Your task to perform on an android device: Search for Mexican restaurants on Maps Image 0: 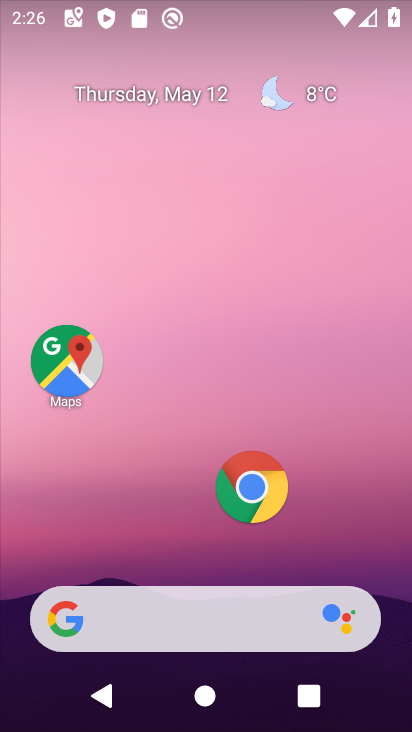
Step 0: click (71, 356)
Your task to perform on an android device: Search for Mexican restaurants on Maps Image 1: 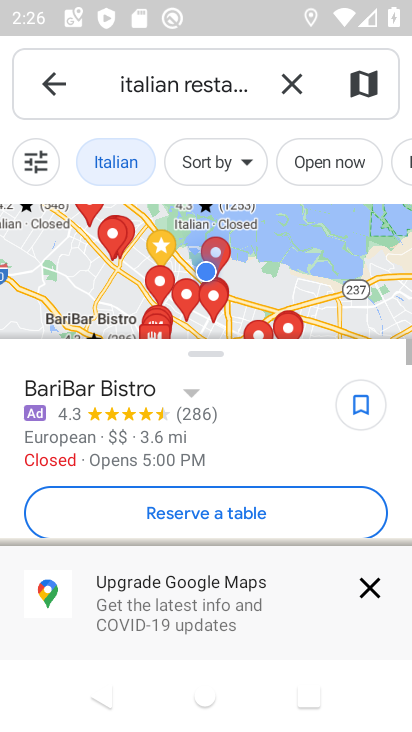
Step 1: click (281, 86)
Your task to perform on an android device: Search for Mexican restaurants on Maps Image 2: 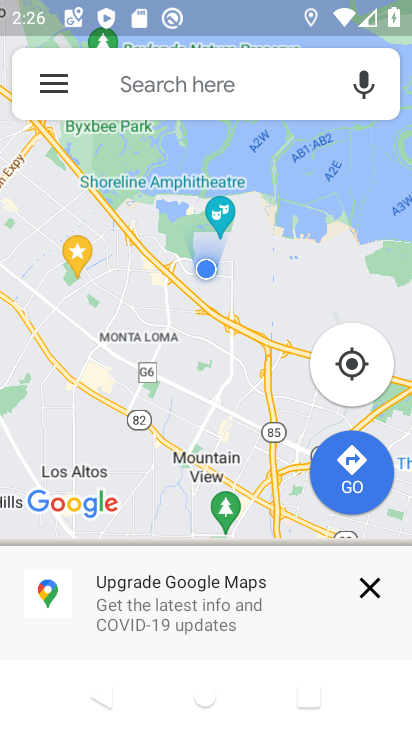
Step 2: click (136, 82)
Your task to perform on an android device: Search for Mexican restaurants on Maps Image 3: 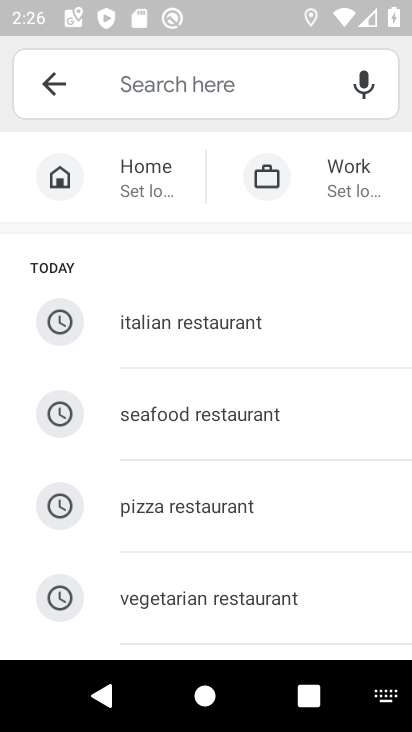
Step 3: type "mexican"
Your task to perform on an android device: Search for Mexican restaurants on Maps Image 4: 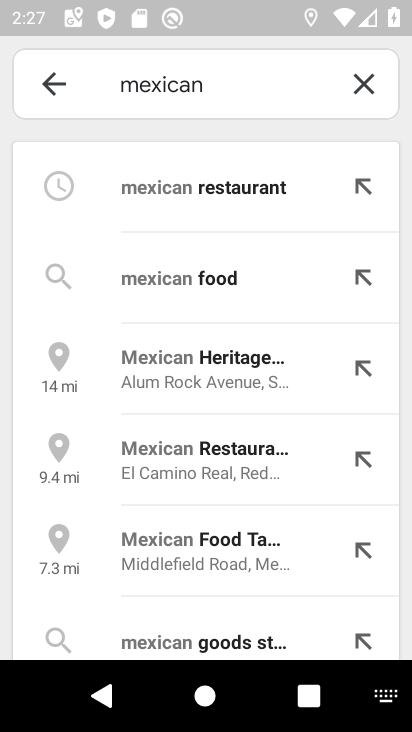
Step 4: click (289, 202)
Your task to perform on an android device: Search for Mexican restaurants on Maps Image 5: 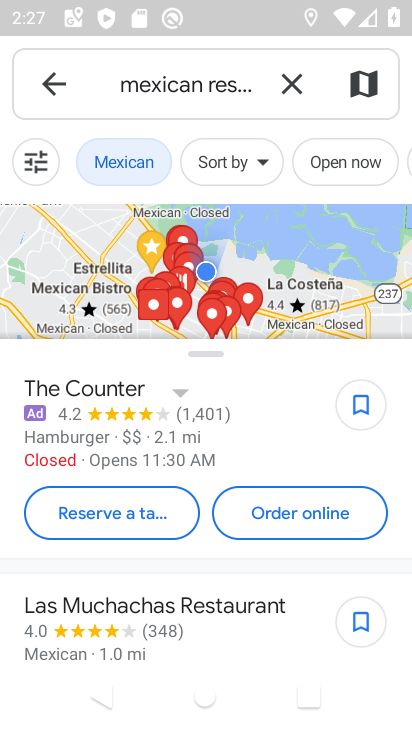
Step 5: task complete